Your task to perform on an android device: find photos in the google photos app Image 0: 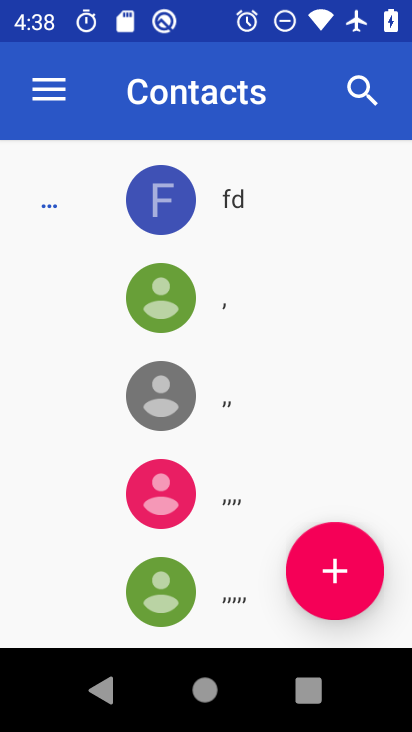
Step 0: press home button
Your task to perform on an android device: find photos in the google photos app Image 1: 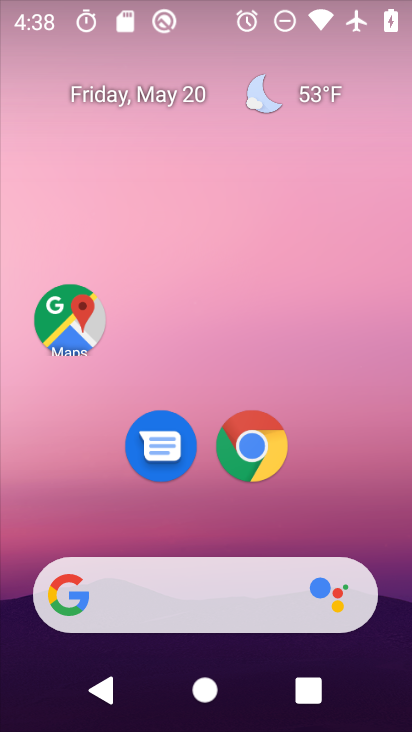
Step 1: drag from (362, 452) to (361, 52)
Your task to perform on an android device: find photos in the google photos app Image 2: 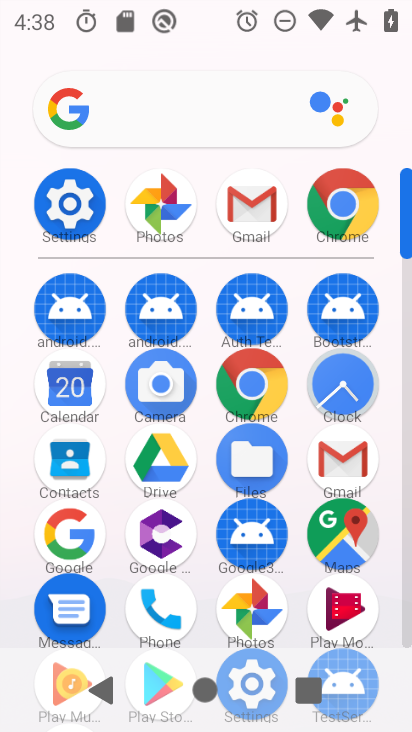
Step 2: click (248, 594)
Your task to perform on an android device: find photos in the google photos app Image 3: 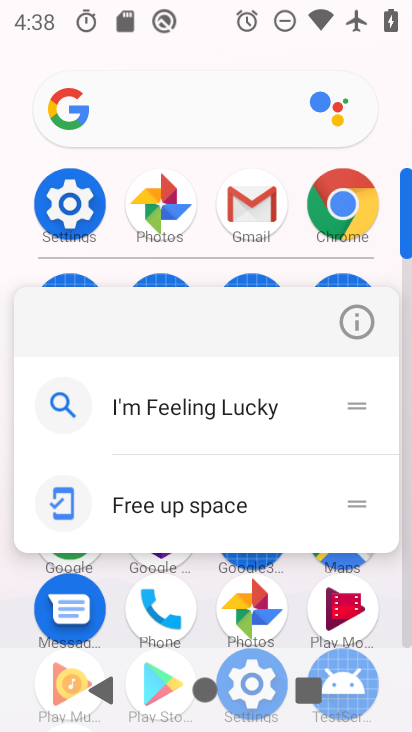
Step 3: click (247, 594)
Your task to perform on an android device: find photos in the google photos app Image 4: 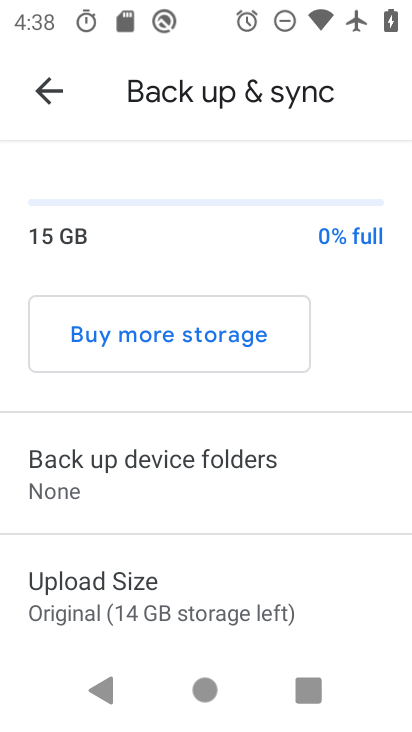
Step 4: drag from (199, 525) to (249, 140)
Your task to perform on an android device: find photos in the google photos app Image 5: 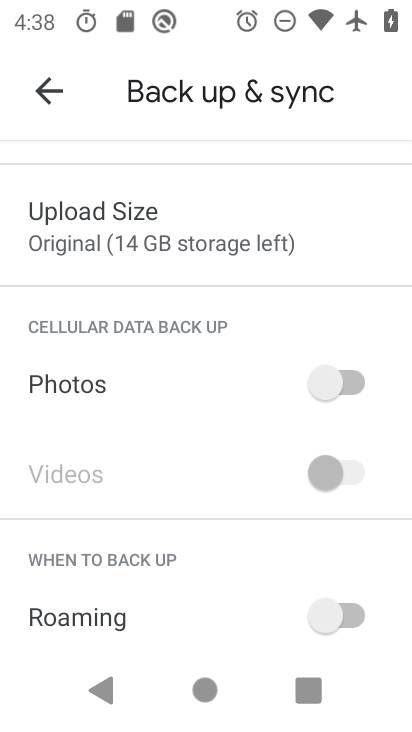
Step 5: click (56, 86)
Your task to perform on an android device: find photos in the google photos app Image 6: 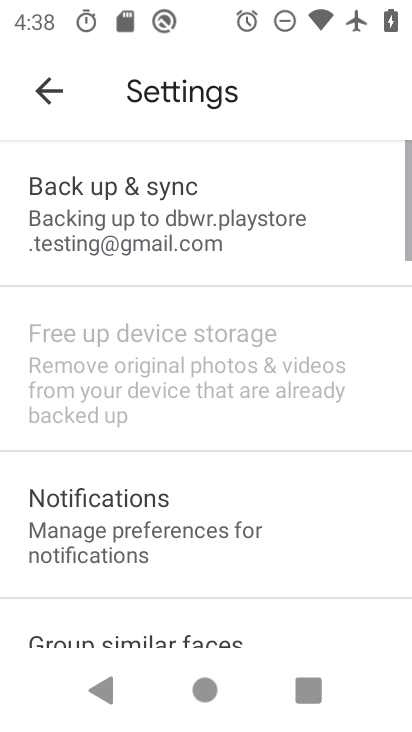
Step 6: click (55, 86)
Your task to perform on an android device: find photos in the google photos app Image 7: 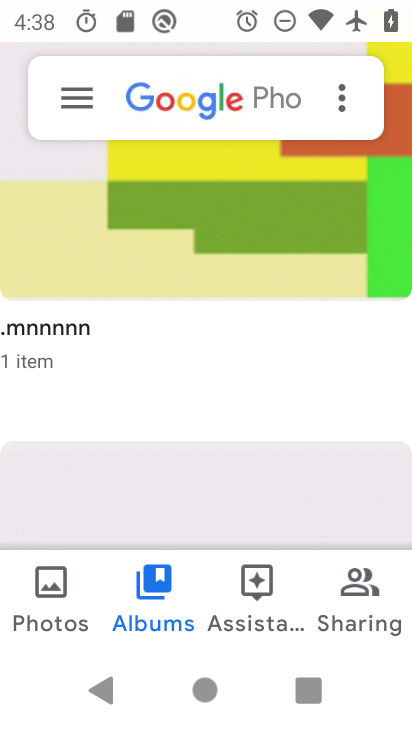
Step 7: click (61, 581)
Your task to perform on an android device: find photos in the google photos app Image 8: 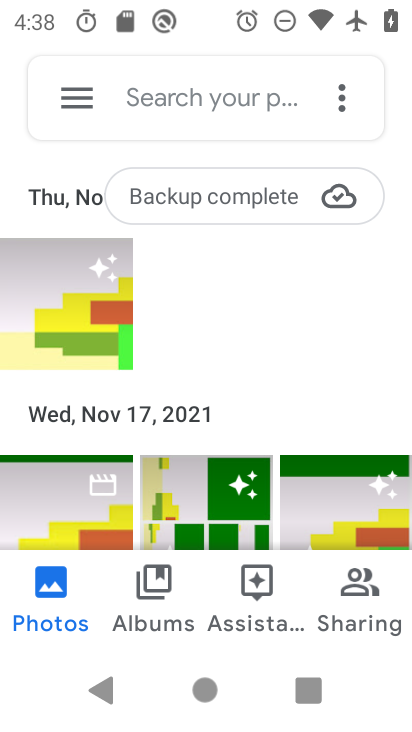
Step 8: task complete